Your task to perform on an android device: Open Google Chrome and click the shortcut for Amazon.com Image 0: 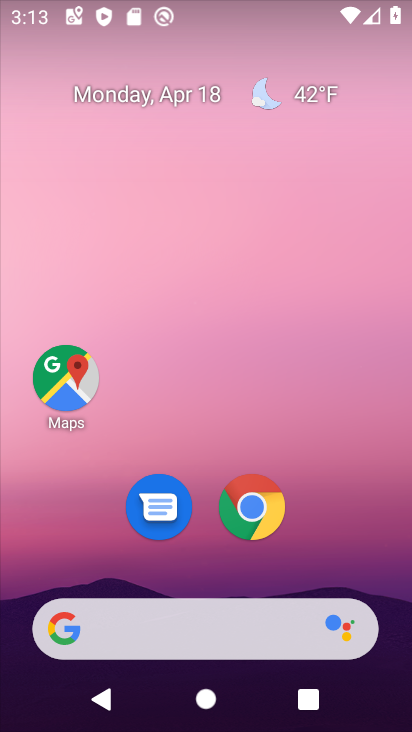
Step 0: drag from (374, 541) to (337, 128)
Your task to perform on an android device: Open Google Chrome and click the shortcut for Amazon.com Image 1: 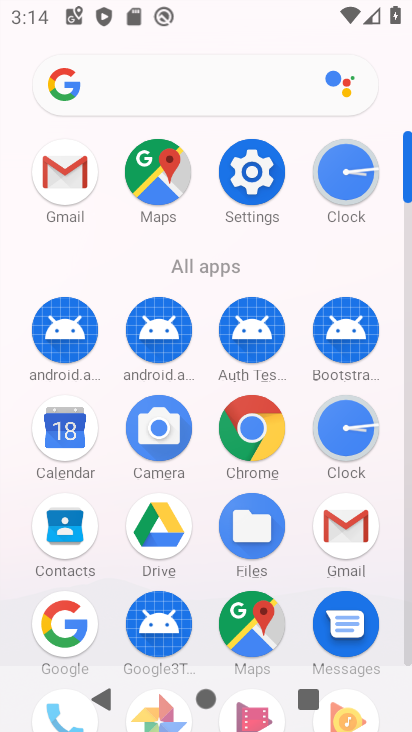
Step 1: drag from (303, 580) to (299, 350)
Your task to perform on an android device: Open Google Chrome and click the shortcut for Amazon.com Image 2: 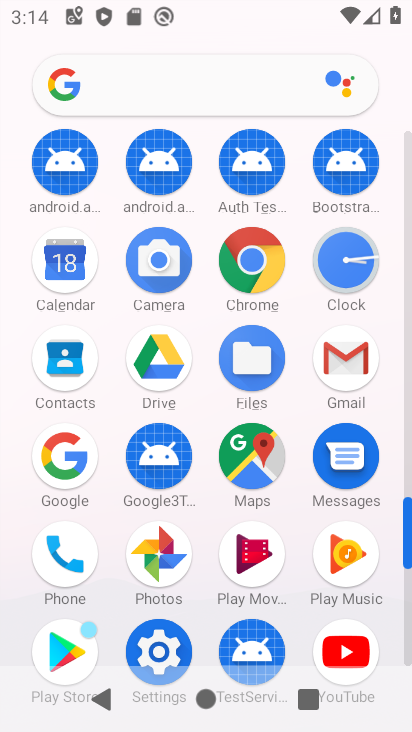
Step 2: click (242, 260)
Your task to perform on an android device: Open Google Chrome and click the shortcut for Amazon.com Image 3: 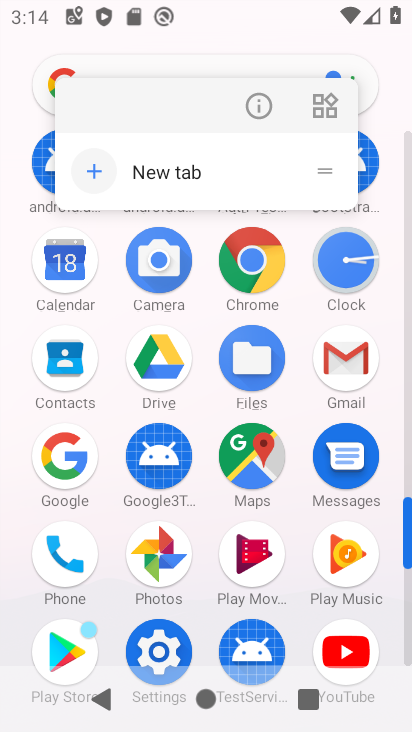
Step 3: click (239, 269)
Your task to perform on an android device: Open Google Chrome and click the shortcut for Amazon.com Image 4: 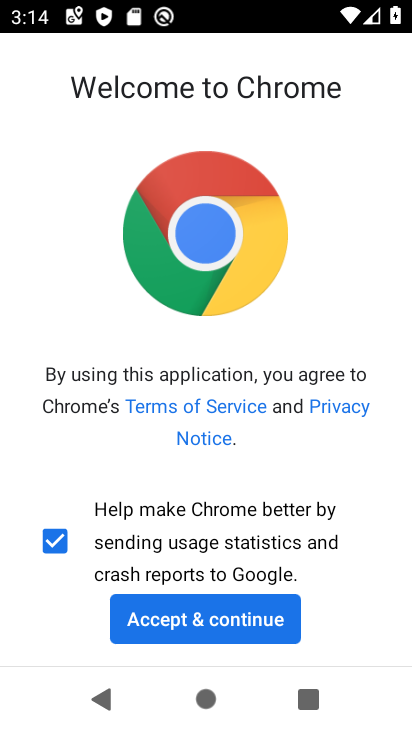
Step 4: click (207, 628)
Your task to perform on an android device: Open Google Chrome and click the shortcut for Amazon.com Image 5: 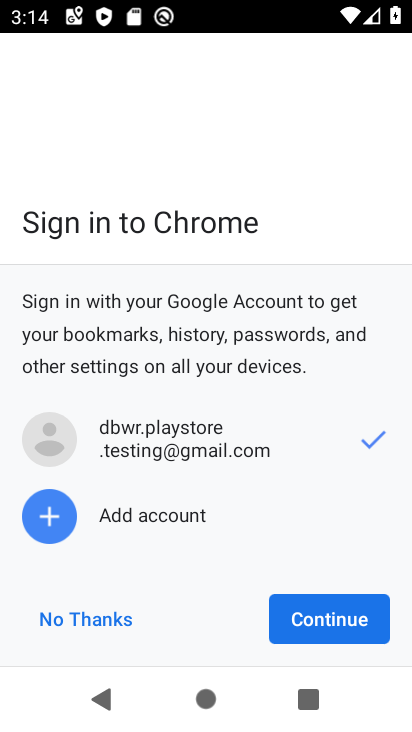
Step 5: click (341, 634)
Your task to perform on an android device: Open Google Chrome and click the shortcut for Amazon.com Image 6: 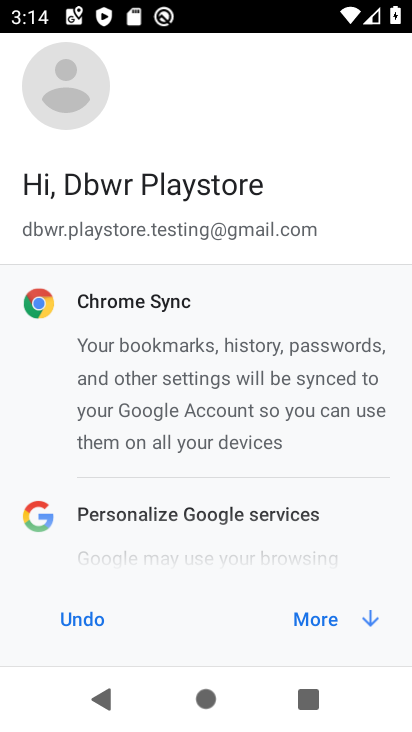
Step 6: click (325, 618)
Your task to perform on an android device: Open Google Chrome and click the shortcut for Amazon.com Image 7: 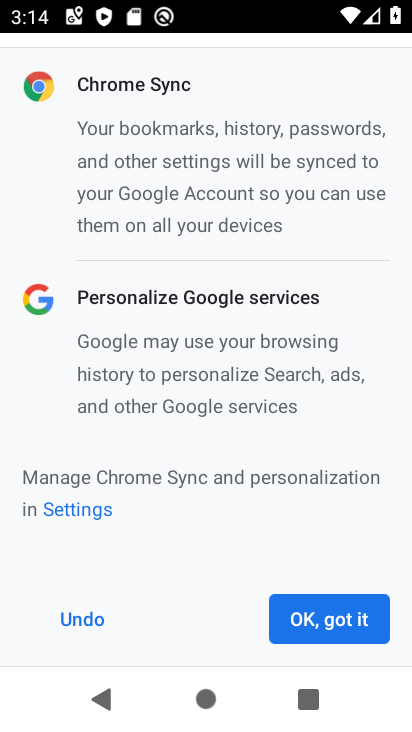
Step 7: click (325, 618)
Your task to perform on an android device: Open Google Chrome and click the shortcut for Amazon.com Image 8: 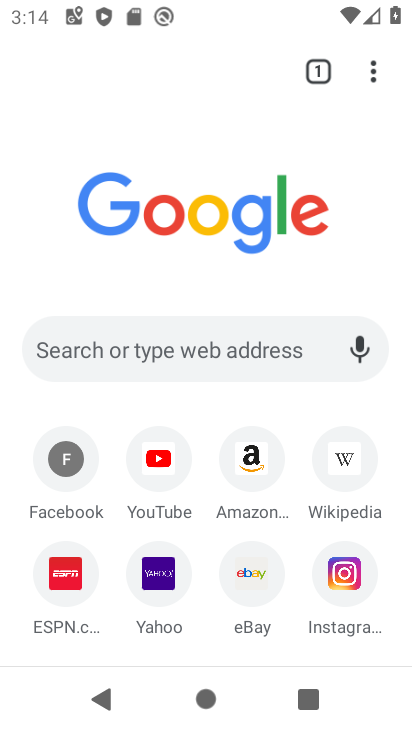
Step 8: click (231, 466)
Your task to perform on an android device: Open Google Chrome and click the shortcut for Amazon.com Image 9: 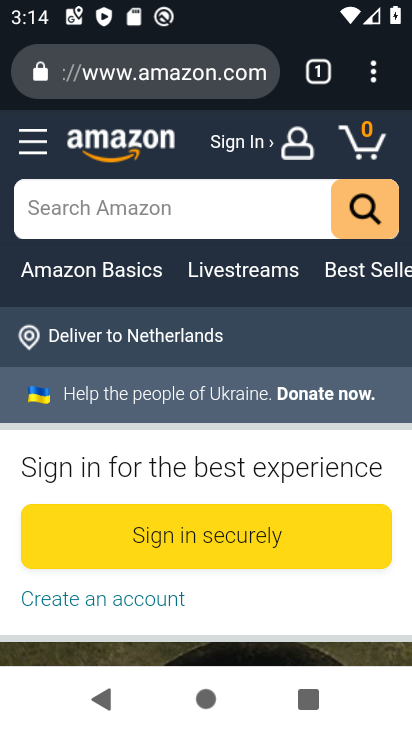
Step 9: task complete